Your task to perform on an android device: Open location settings Image 0: 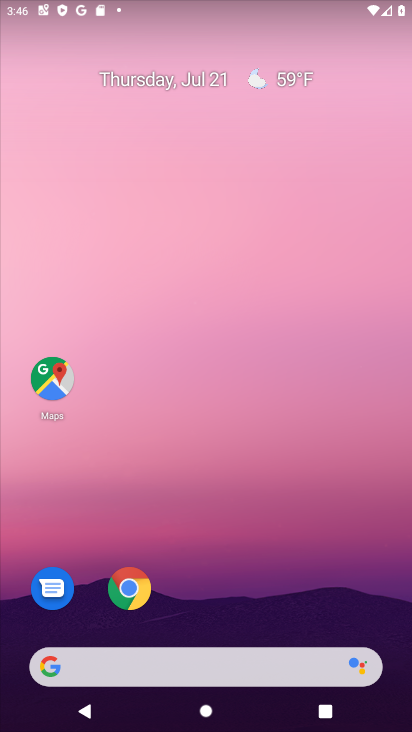
Step 0: drag from (222, 720) to (199, 215)
Your task to perform on an android device: Open location settings Image 1: 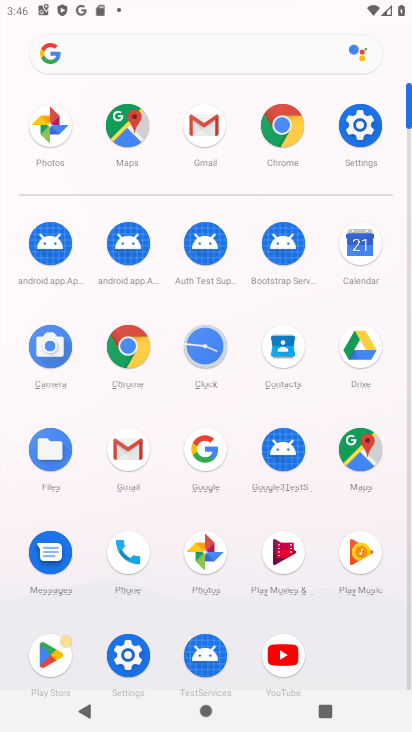
Step 1: click (359, 117)
Your task to perform on an android device: Open location settings Image 2: 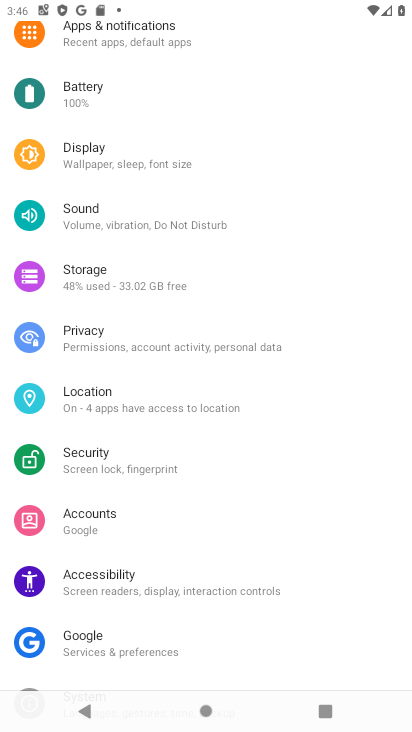
Step 2: click (79, 398)
Your task to perform on an android device: Open location settings Image 3: 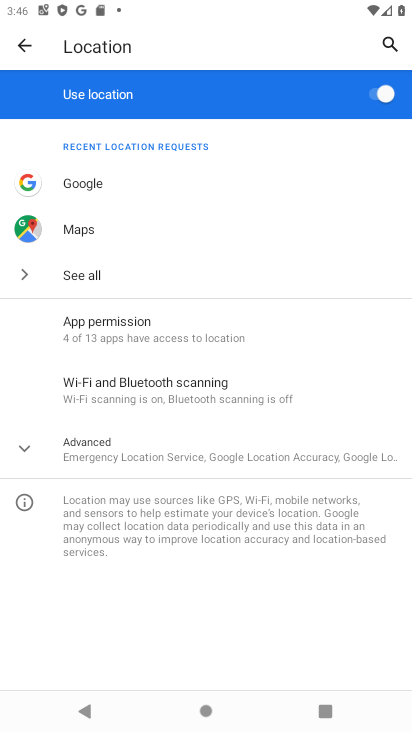
Step 3: task complete